Your task to perform on an android device: Go to sound settings Image 0: 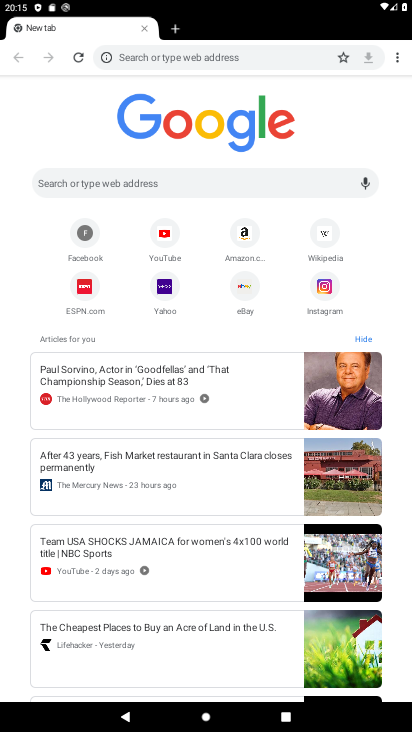
Step 0: press home button
Your task to perform on an android device: Go to sound settings Image 1: 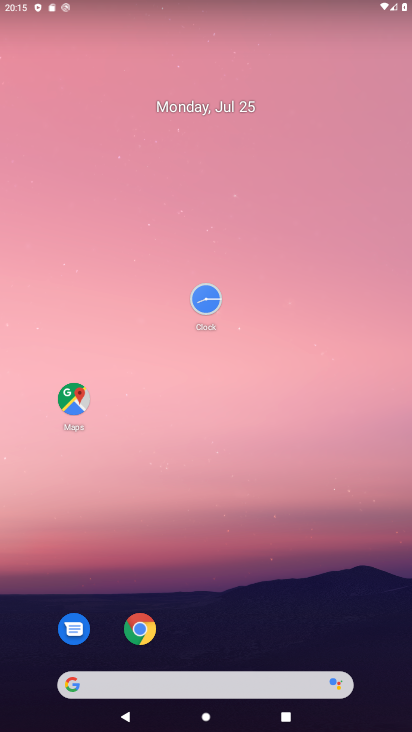
Step 1: drag from (227, 651) to (216, 296)
Your task to perform on an android device: Go to sound settings Image 2: 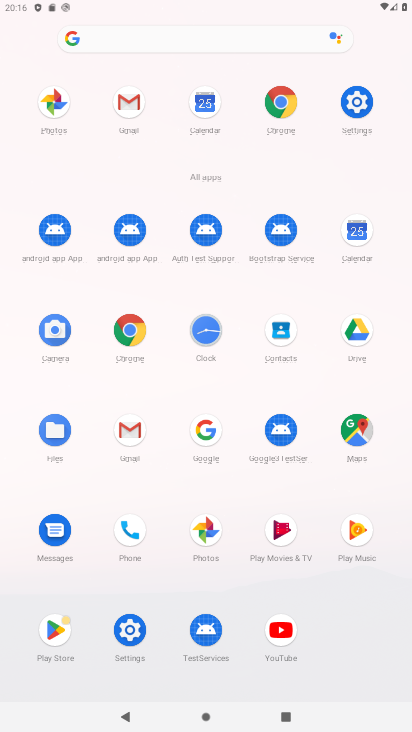
Step 2: click (140, 625)
Your task to perform on an android device: Go to sound settings Image 3: 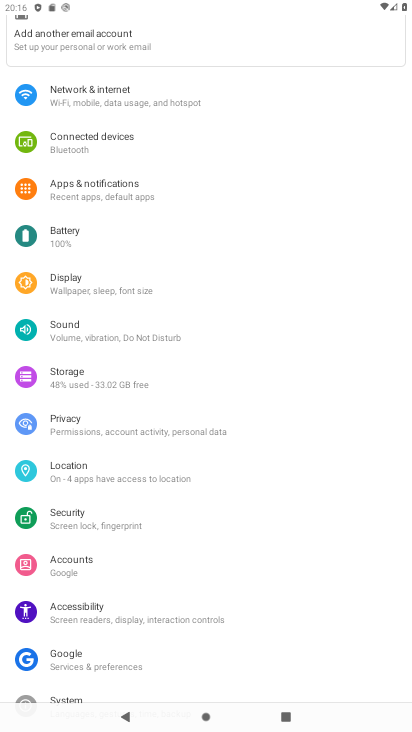
Step 3: click (102, 338)
Your task to perform on an android device: Go to sound settings Image 4: 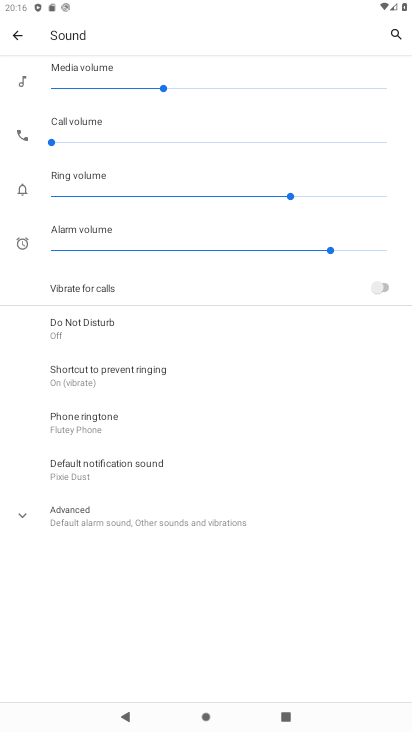
Step 4: task complete